Your task to perform on an android device: Open accessibility settings Image 0: 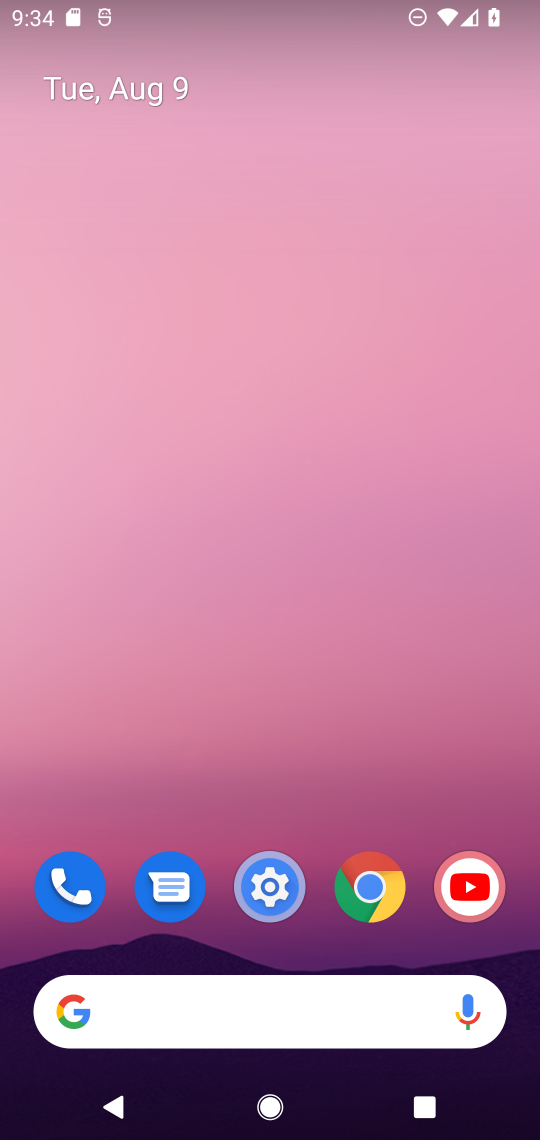
Step 0: drag from (261, 800) to (296, 24)
Your task to perform on an android device: Open accessibility settings Image 1: 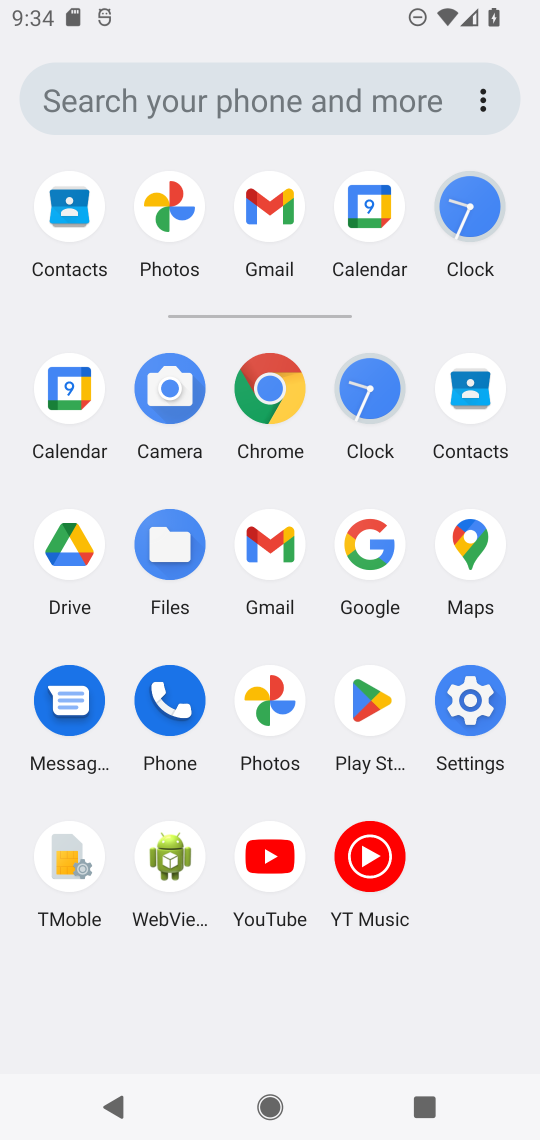
Step 1: click (491, 737)
Your task to perform on an android device: Open accessibility settings Image 2: 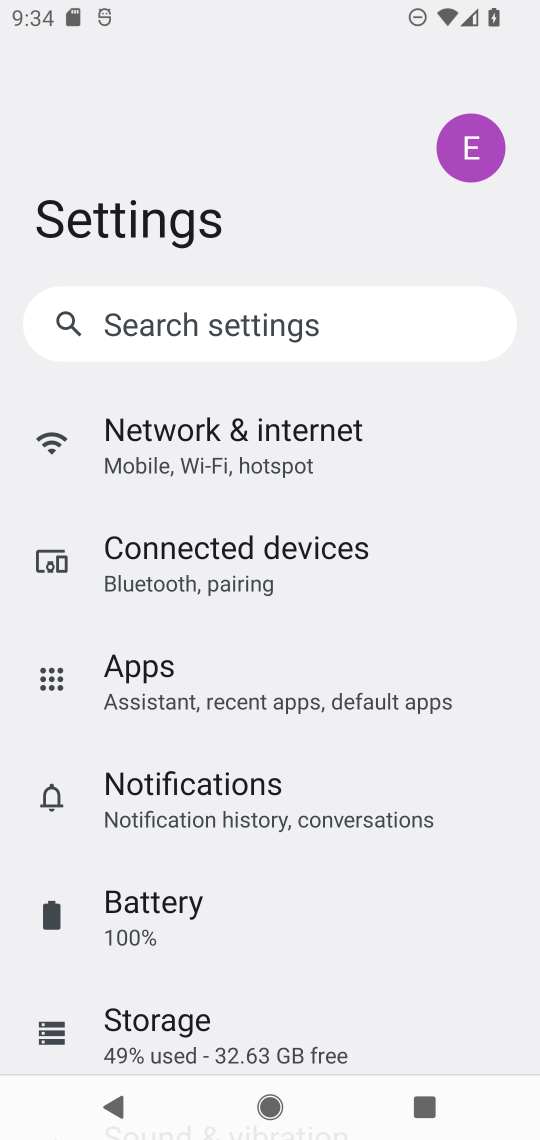
Step 2: drag from (276, 917) to (275, 405)
Your task to perform on an android device: Open accessibility settings Image 3: 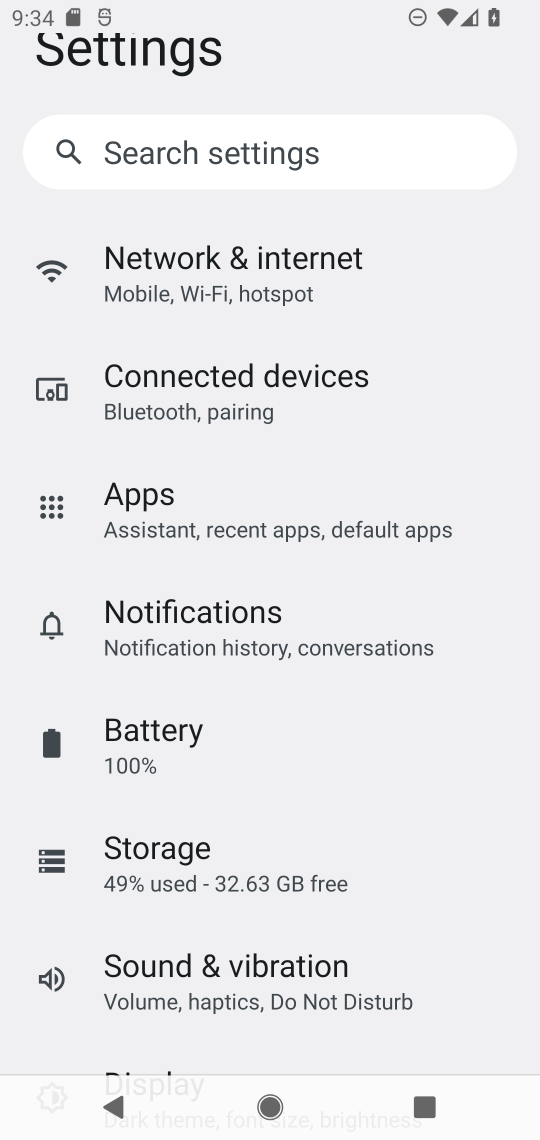
Step 3: drag from (225, 872) to (306, 342)
Your task to perform on an android device: Open accessibility settings Image 4: 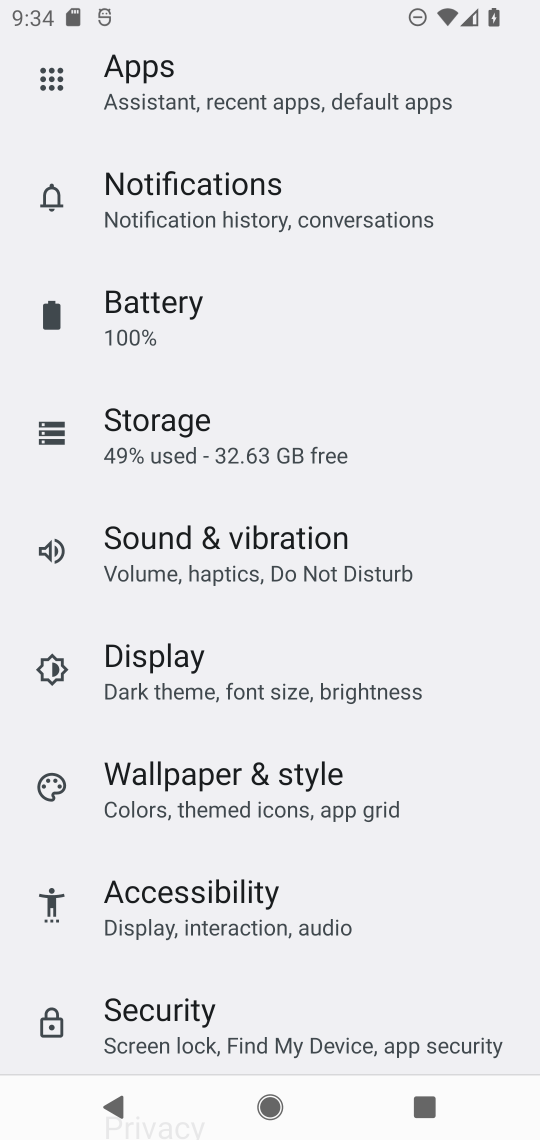
Step 4: click (250, 894)
Your task to perform on an android device: Open accessibility settings Image 5: 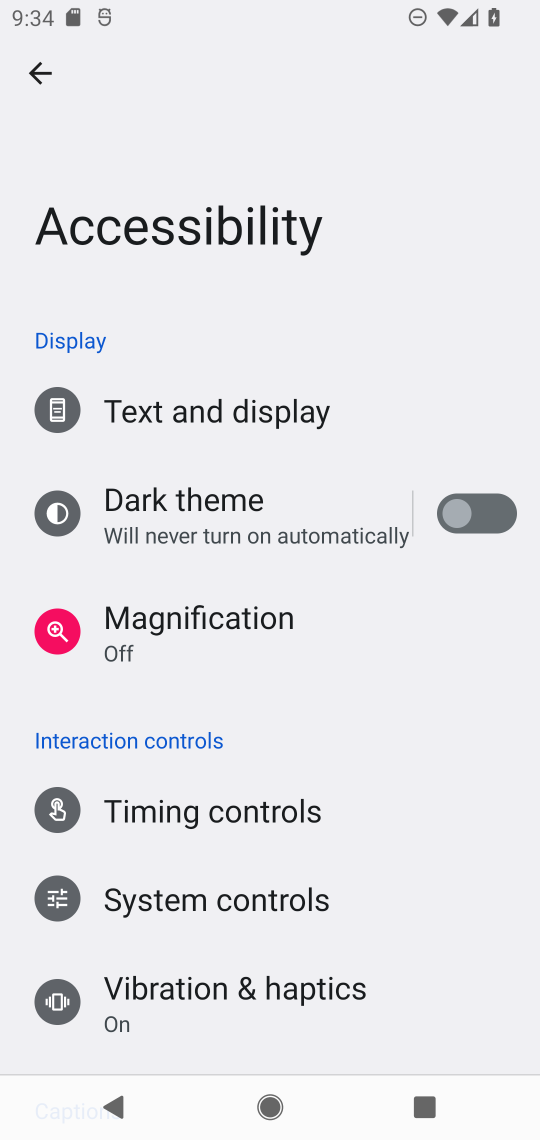
Step 5: task complete